Your task to perform on an android device: toggle show notifications on the lock screen Image 0: 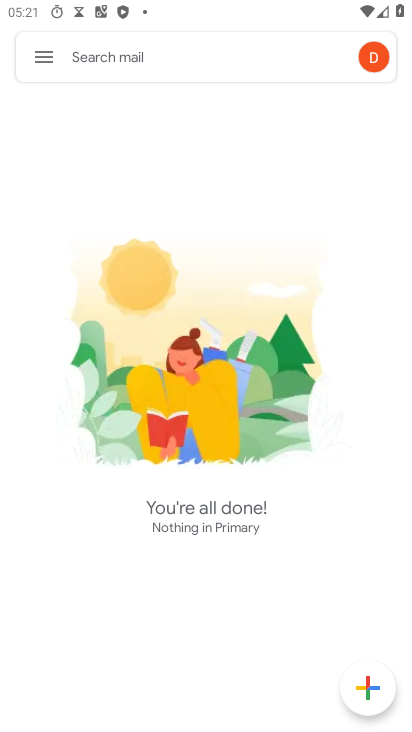
Step 0: drag from (385, 698) to (128, 0)
Your task to perform on an android device: toggle show notifications on the lock screen Image 1: 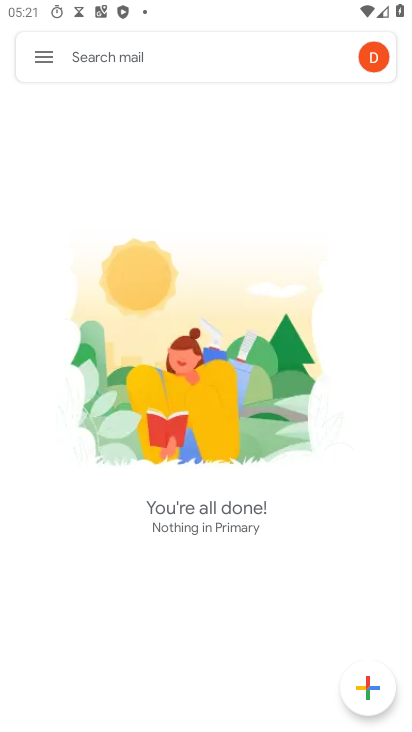
Step 1: press back button
Your task to perform on an android device: toggle show notifications on the lock screen Image 2: 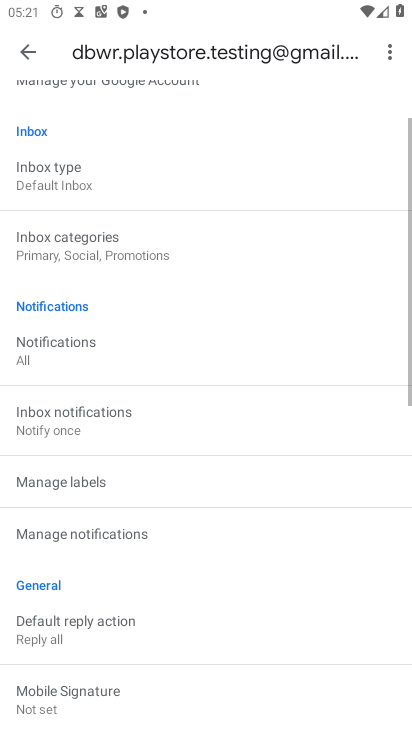
Step 2: press home button
Your task to perform on an android device: toggle show notifications on the lock screen Image 3: 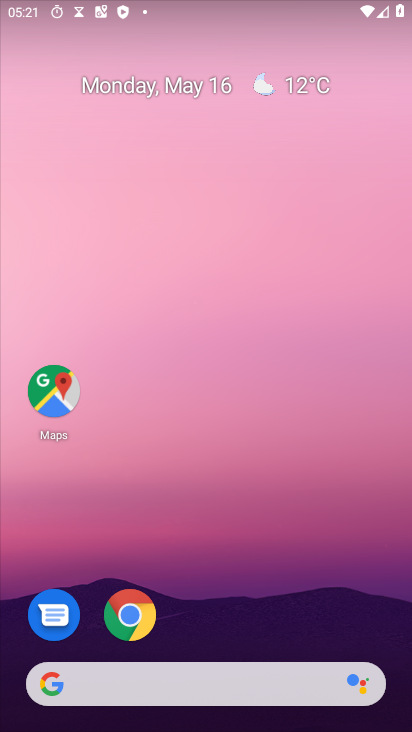
Step 3: drag from (207, 532) to (109, 0)
Your task to perform on an android device: toggle show notifications on the lock screen Image 4: 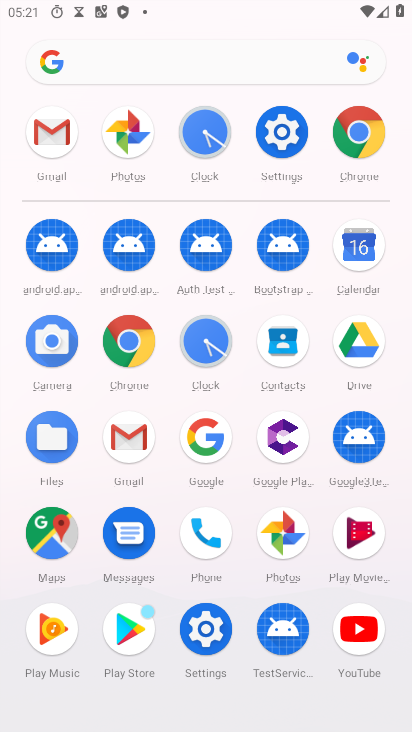
Step 4: click (219, 640)
Your task to perform on an android device: toggle show notifications on the lock screen Image 5: 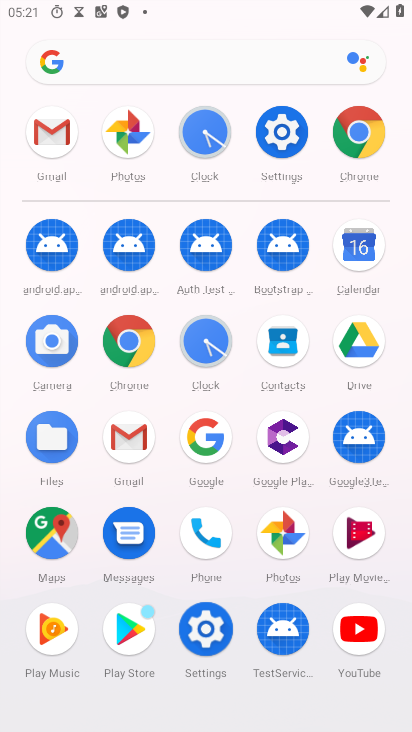
Step 5: click (206, 633)
Your task to perform on an android device: toggle show notifications on the lock screen Image 6: 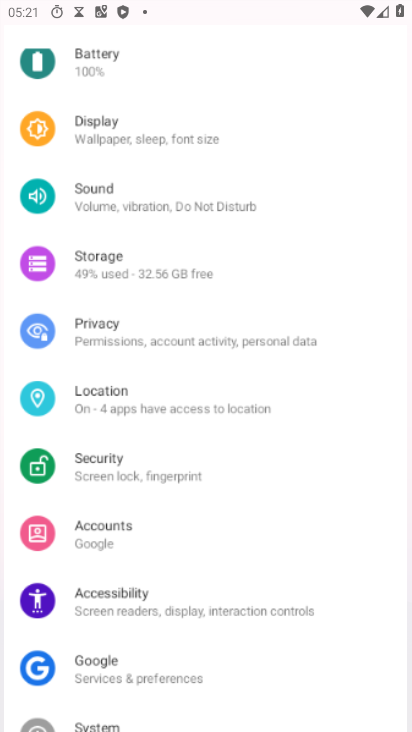
Step 6: click (206, 633)
Your task to perform on an android device: toggle show notifications on the lock screen Image 7: 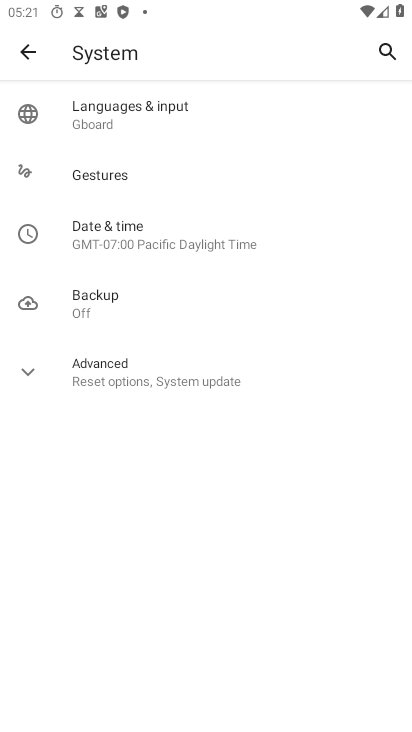
Step 7: click (29, 50)
Your task to perform on an android device: toggle show notifications on the lock screen Image 8: 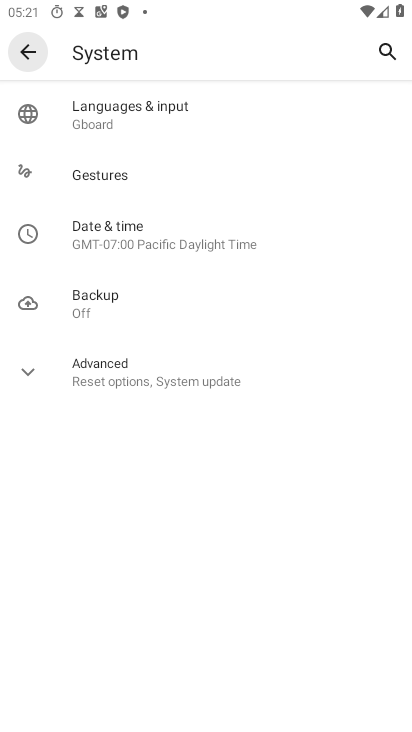
Step 8: click (27, 51)
Your task to perform on an android device: toggle show notifications on the lock screen Image 9: 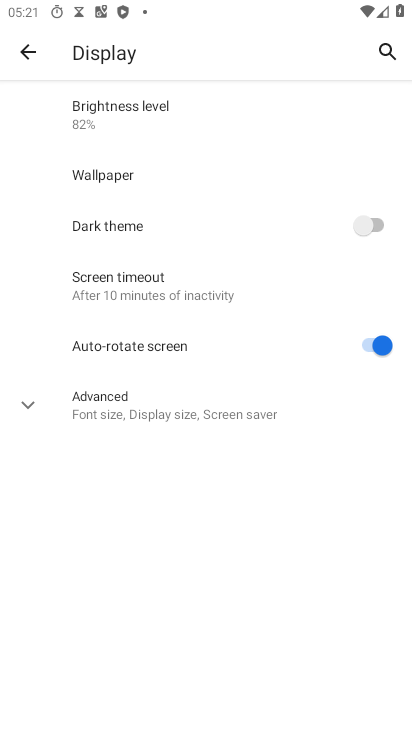
Step 9: click (27, 56)
Your task to perform on an android device: toggle show notifications on the lock screen Image 10: 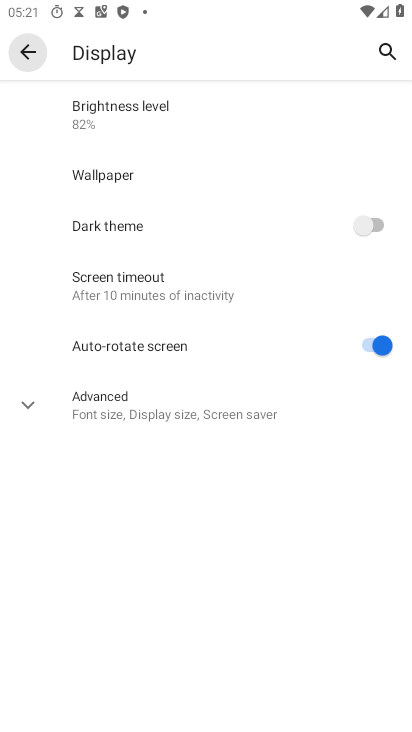
Step 10: click (25, 55)
Your task to perform on an android device: toggle show notifications on the lock screen Image 11: 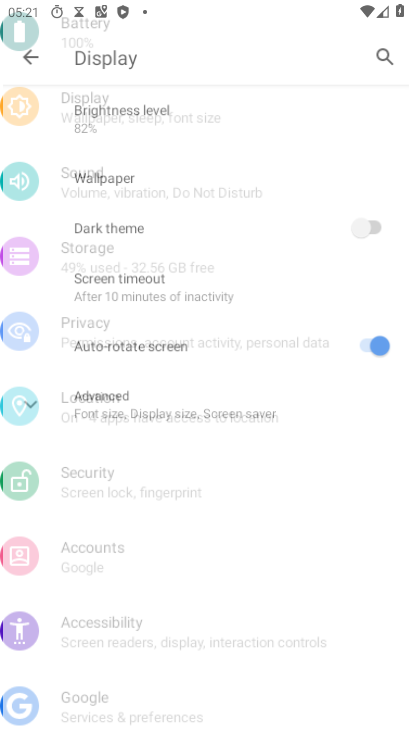
Step 11: click (25, 55)
Your task to perform on an android device: toggle show notifications on the lock screen Image 12: 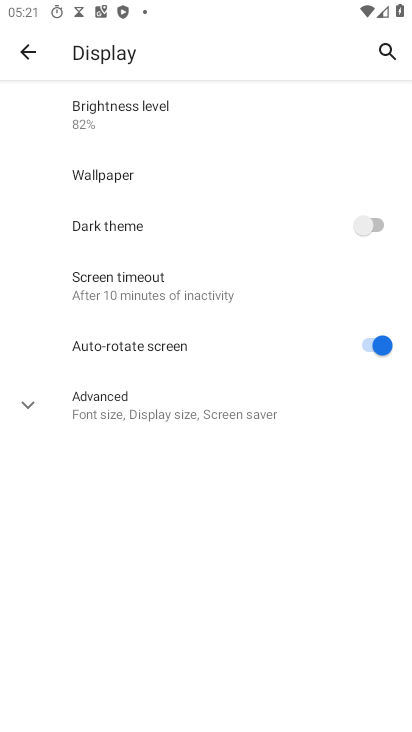
Step 12: click (19, 49)
Your task to perform on an android device: toggle show notifications on the lock screen Image 13: 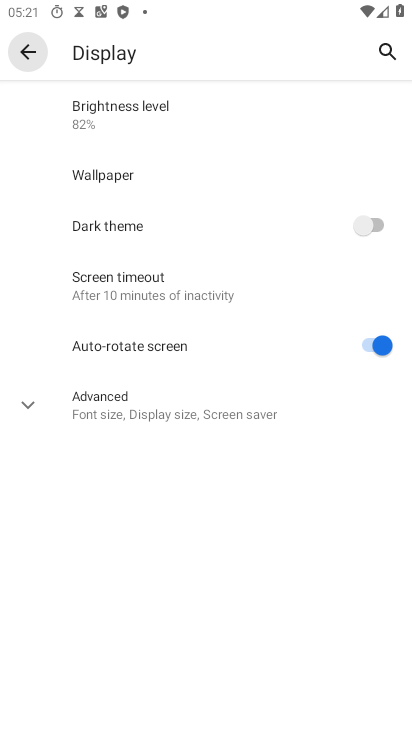
Step 13: click (23, 50)
Your task to perform on an android device: toggle show notifications on the lock screen Image 14: 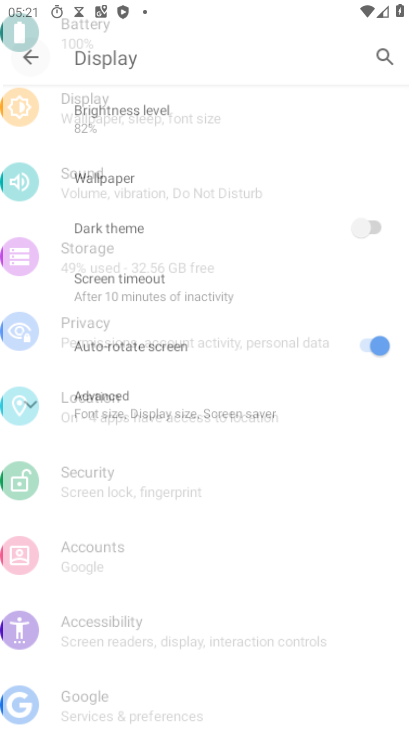
Step 14: click (23, 50)
Your task to perform on an android device: toggle show notifications on the lock screen Image 15: 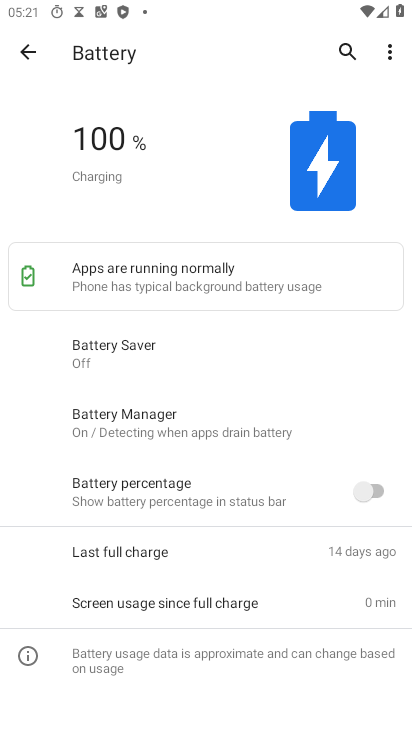
Step 15: click (27, 57)
Your task to perform on an android device: toggle show notifications on the lock screen Image 16: 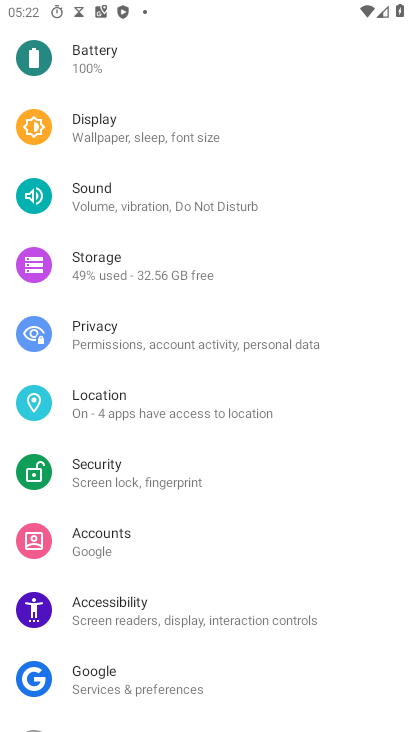
Step 16: drag from (128, 204) to (129, 563)
Your task to perform on an android device: toggle show notifications on the lock screen Image 17: 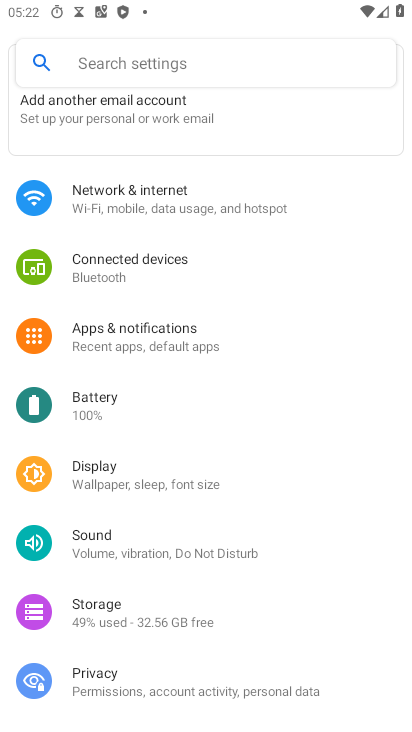
Step 17: drag from (179, 656) to (183, 219)
Your task to perform on an android device: toggle show notifications on the lock screen Image 18: 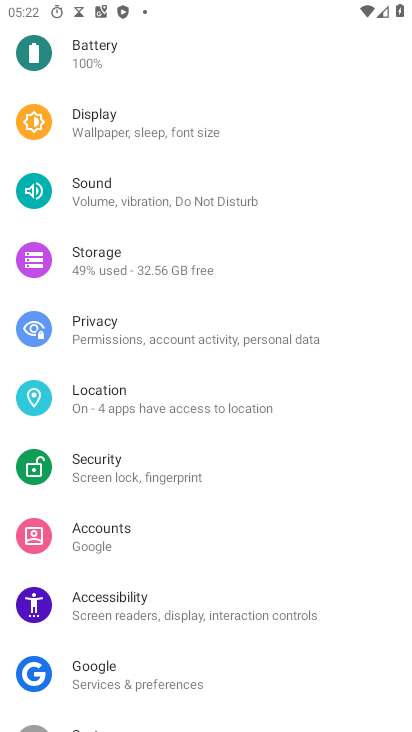
Step 18: drag from (183, 219) to (183, 524)
Your task to perform on an android device: toggle show notifications on the lock screen Image 19: 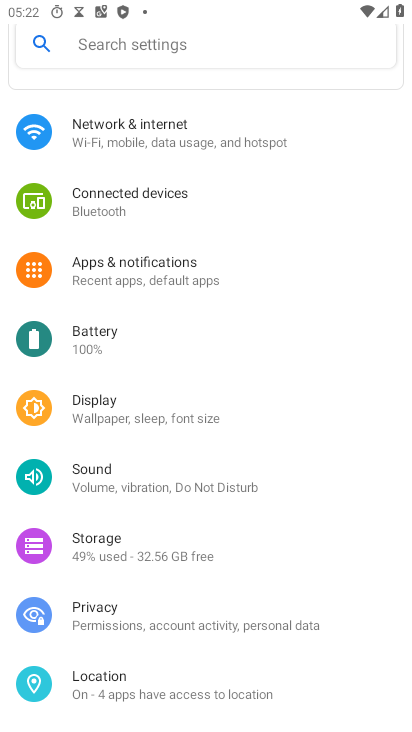
Step 19: click (117, 121)
Your task to perform on an android device: toggle show notifications on the lock screen Image 20: 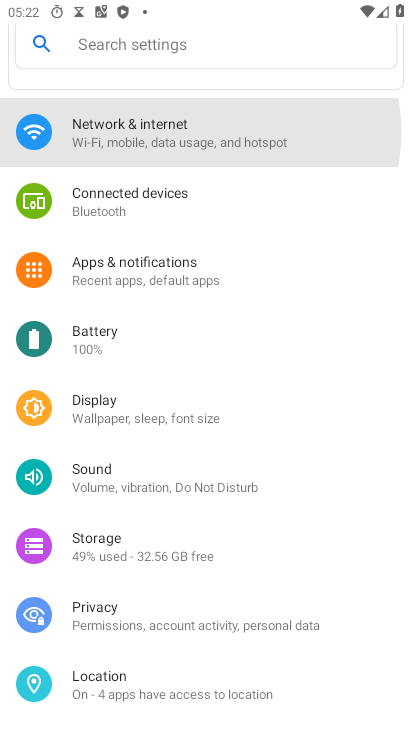
Step 20: click (117, 121)
Your task to perform on an android device: toggle show notifications on the lock screen Image 21: 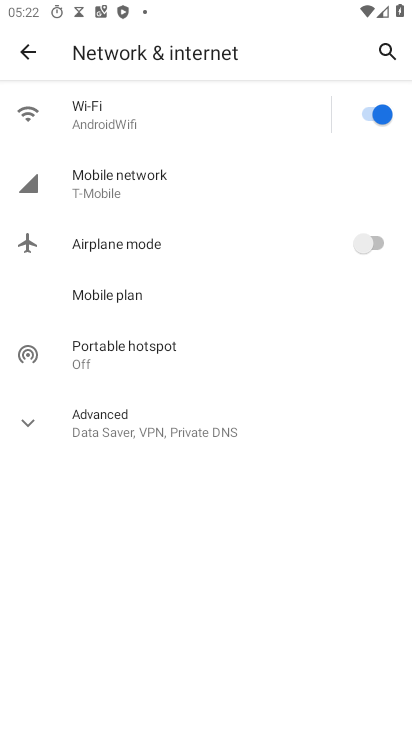
Step 21: click (25, 49)
Your task to perform on an android device: toggle show notifications on the lock screen Image 22: 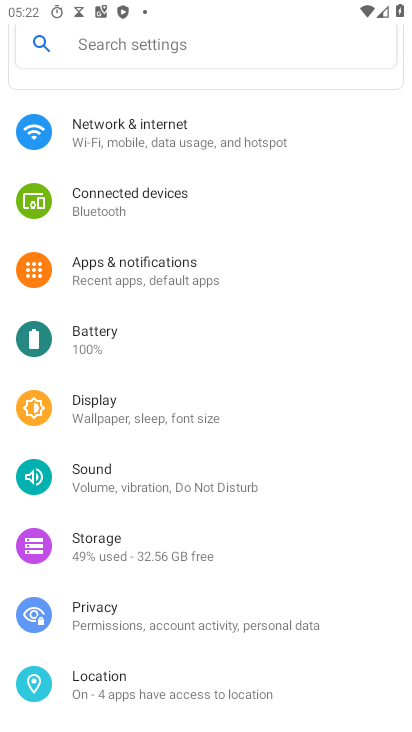
Step 22: click (123, 274)
Your task to perform on an android device: toggle show notifications on the lock screen Image 23: 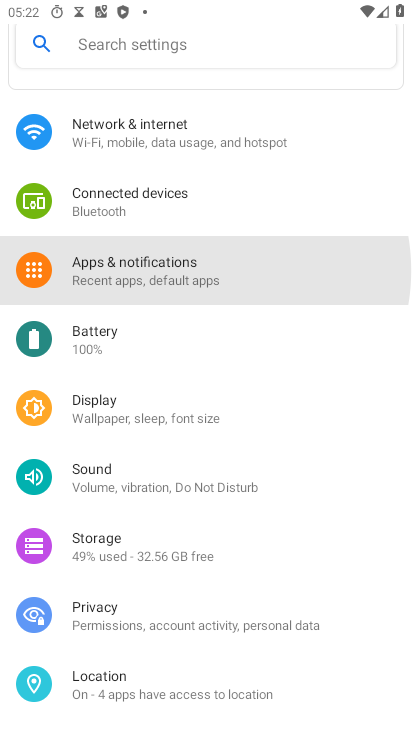
Step 23: click (123, 275)
Your task to perform on an android device: toggle show notifications on the lock screen Image 24: 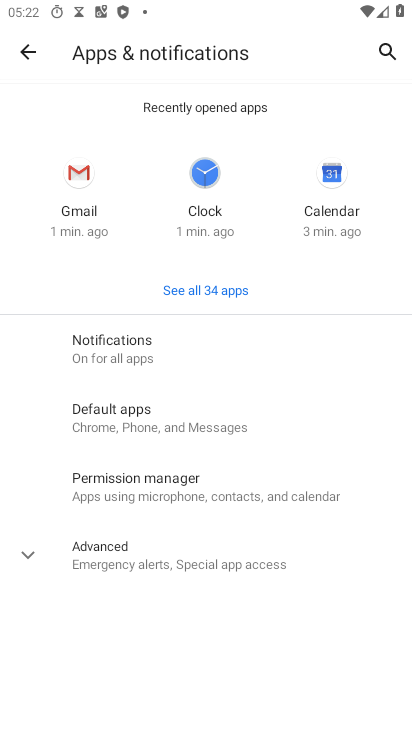
Step 24: click (105, 355)
Your task to perform on an android device: toggle show notifications on the lock screen Image 25: 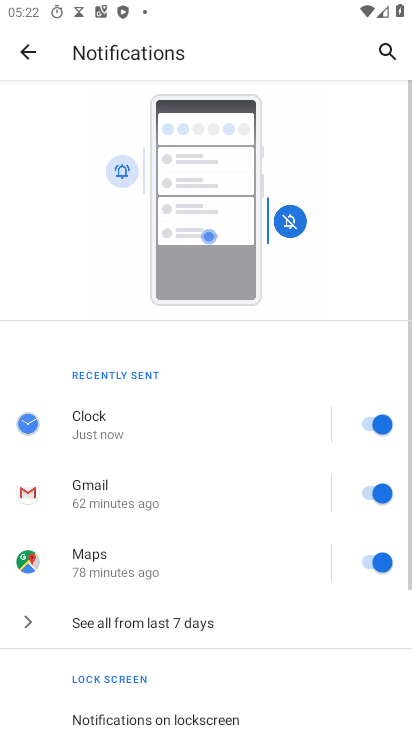
Step 25: drag from (166, 478) to (85, 6)
Your task to perform on an android device: toggle show notifications on the lock screen Image 26: 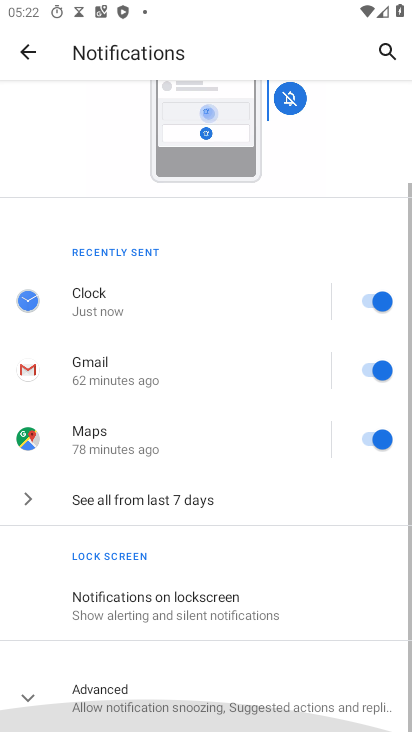
Step 26: drag from (160, 418) to (118, 95)
Your task to perform on an android device: toggle show notifications on the lock screen Image 27: 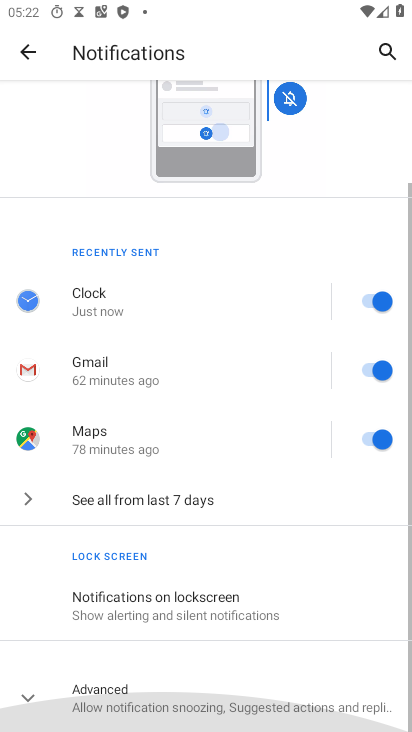
Step 27: drag from (203, 434) to (142, 121)
Your task to perform on an android device: toggle show notifications on the lock screen Image 28: 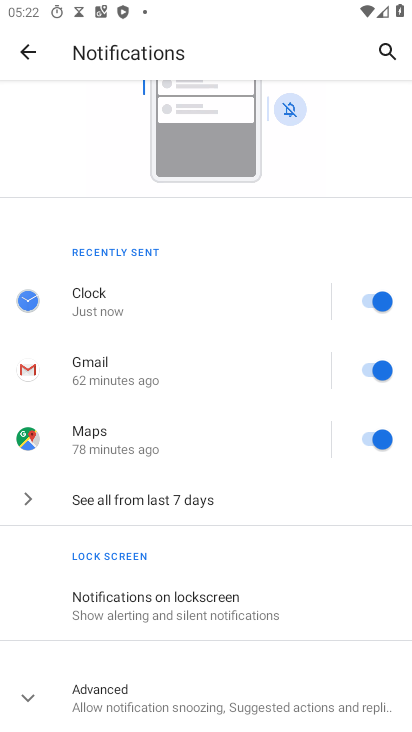
Step 28: click (111, 700)
Your task to perform on an android device: toggle show notifications on the lock screen Image 29: 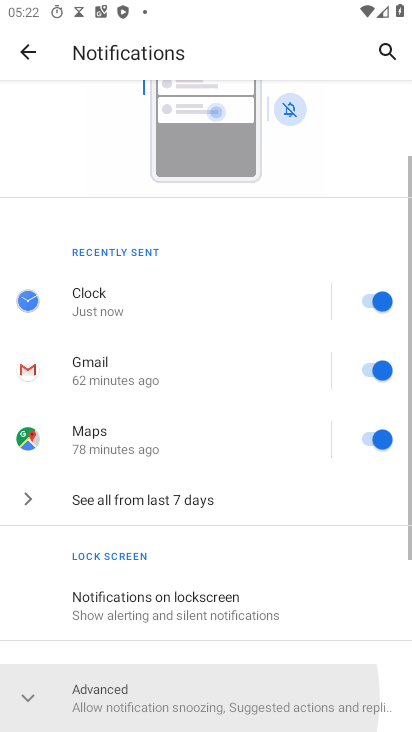
Step 29: click (111, 691)
Your task to perform on an android device: toggle show notifications on the lock screen Image 30: 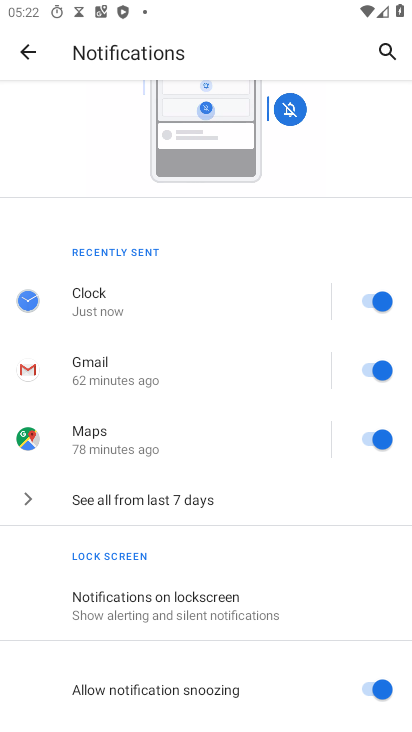
Step 30: drag from (180, 466) to (153, 65)
Your task to perform on an android device: toggle show notifications on the lock screen Image 31: 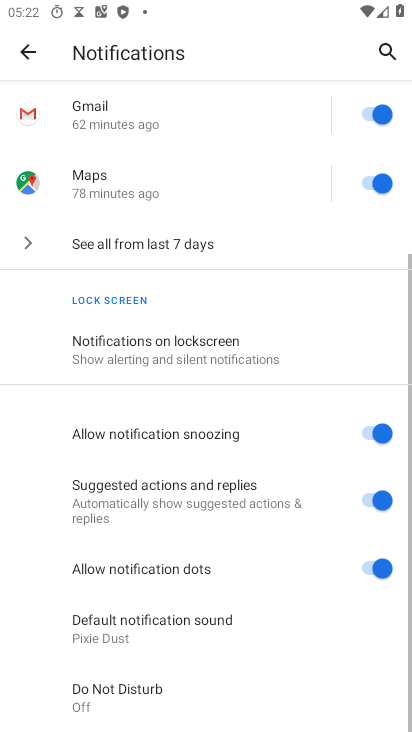
Step 31: drag from (192, 555) to (135, 168)
Your task to perform on an android device: toggle show notifications on the lock screen Image 32: 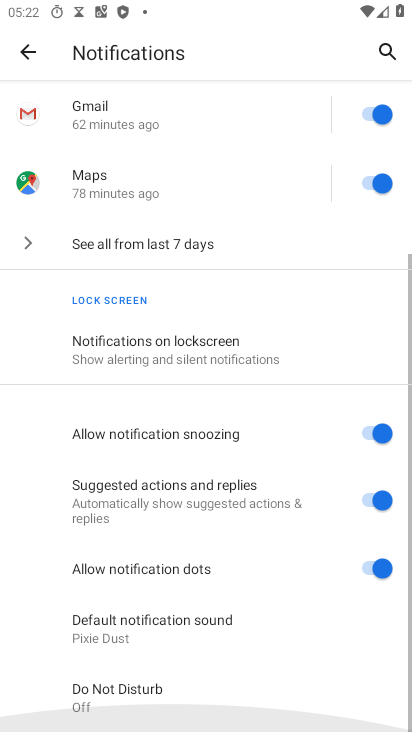
Step 32: drag from (200, 500) to (220, 61)
Your task to perform on an android device: toggle show notifications on the lock screen Image 33: 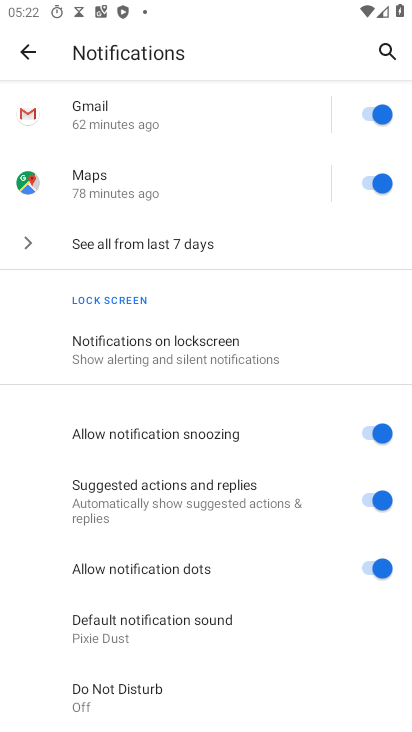
Step 33: click (141, 343)
Your task to perform on an android device: toggle show notifications on the lock screen Image 34: 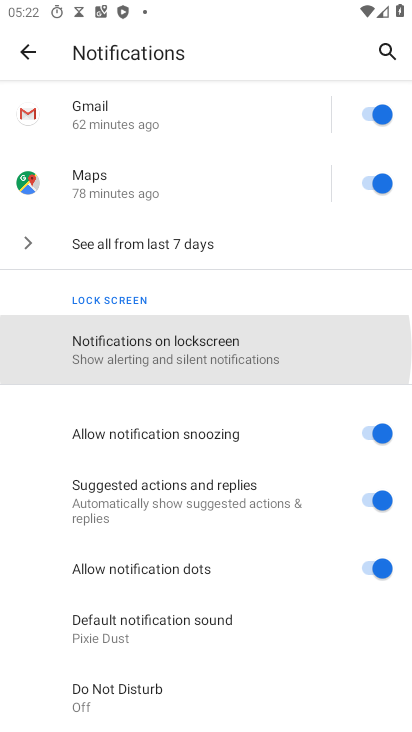
Step 34: click (140, 345)
Your task to perform on an android device: toggle show notifications on the lock screen Image 35: 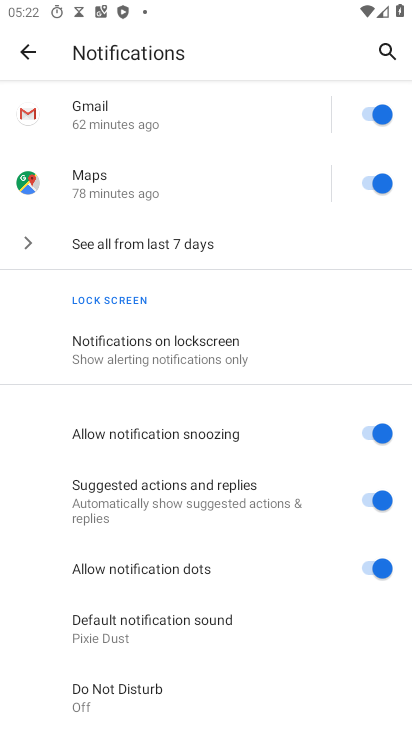
Step 35: click (203, 341)
Your task to perform on an android device: toggle show notifications on the lock screen Image 36: 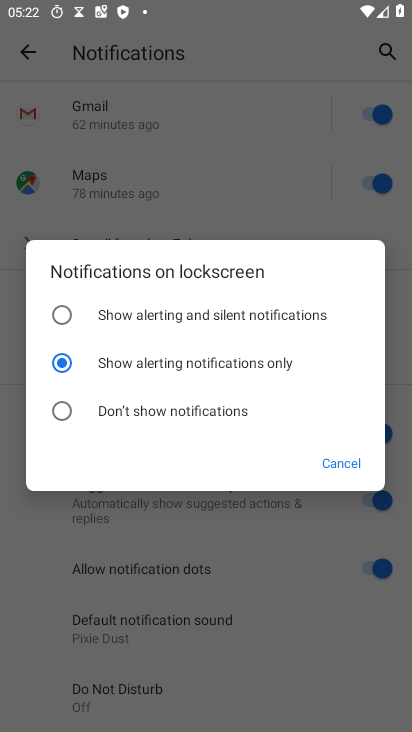
Step 36: click (61, 314)
Your task to perform on an android device: toggle show notifications on the lock screen Image 37: 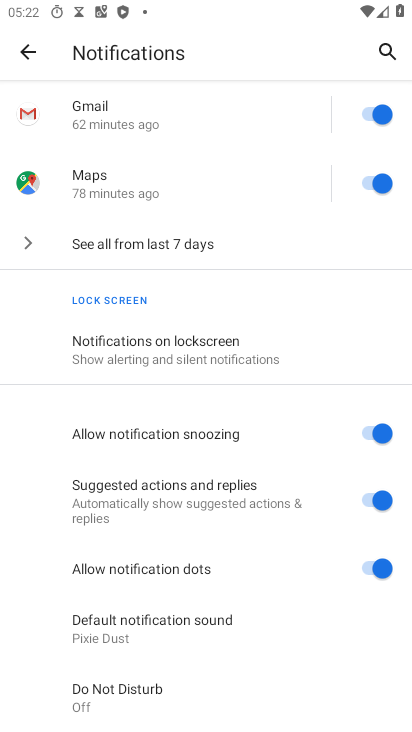
Step 37: task complete